Your task to perform on an android device: toggle improve location accuracy Image 0: 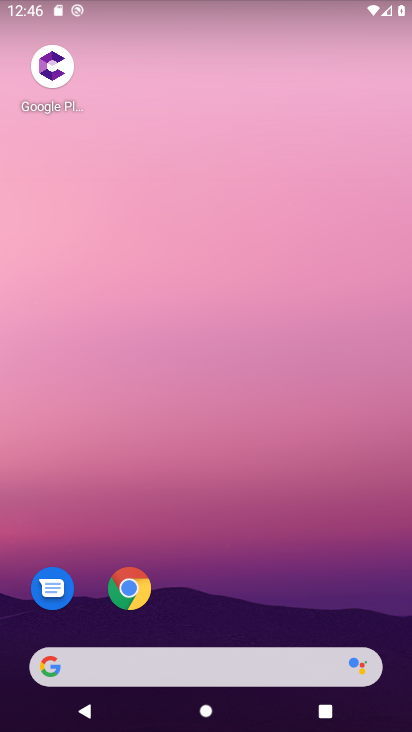
Step 0: drag from (205, 627) to (205, 323)
Your task to perform on an android device: toggle improve location accuracy Image 1: 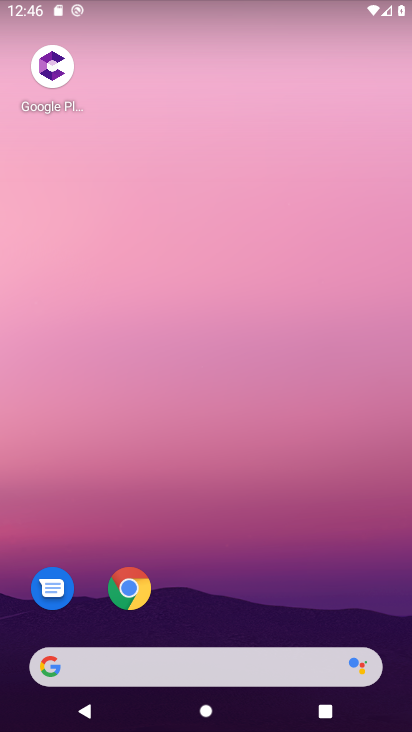
Step 1: drag from (259, 613) to (318, 196)
Your task to perform on an android device: toggle improve location accuracy Image 2: 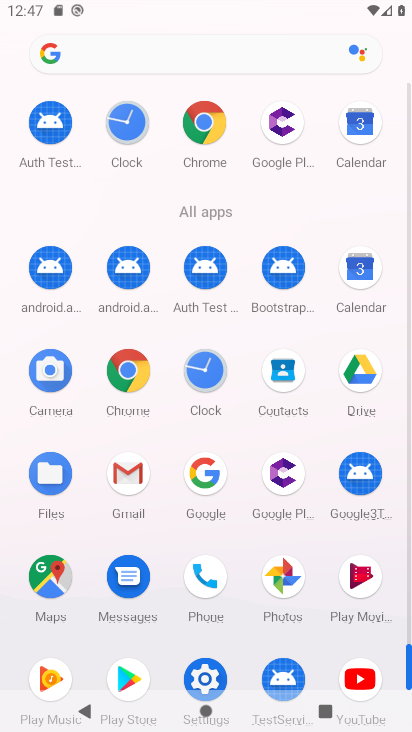
Step 2: drag from (194, 459) to (194, 332)
Your task to perform on an android device: toggle improve location accuracy Image 3: 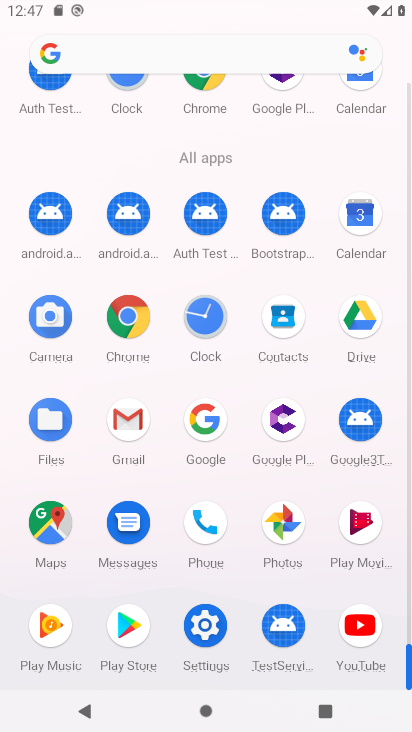
Step 3: click (208, 633)
Your task to perform on an android device: toggle improve location accuracy Image 4: 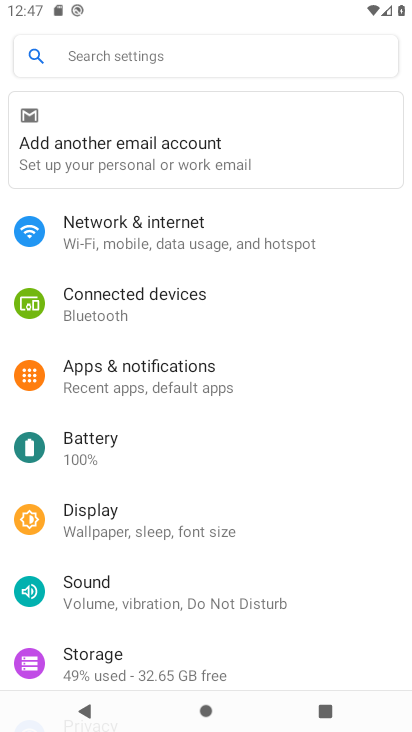
Step 4: drag from (155, 608) to (156, 372)
Your task to perform on an android device: toggle improve location accuracy Image 5: 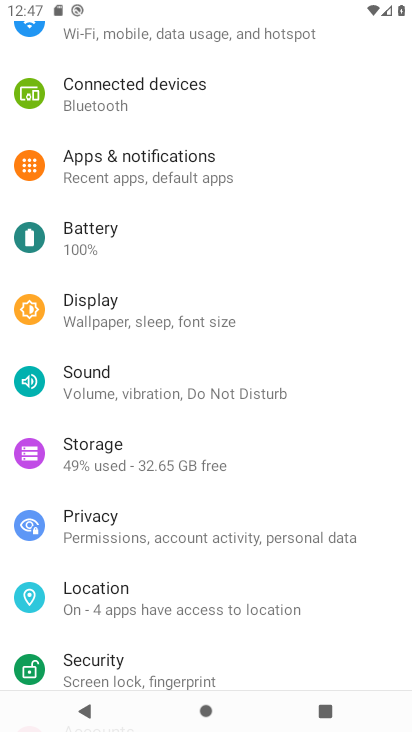
Step 5: click (185, 603)
Your task to perform on an android device: toggle improve location accuracy Image 6: 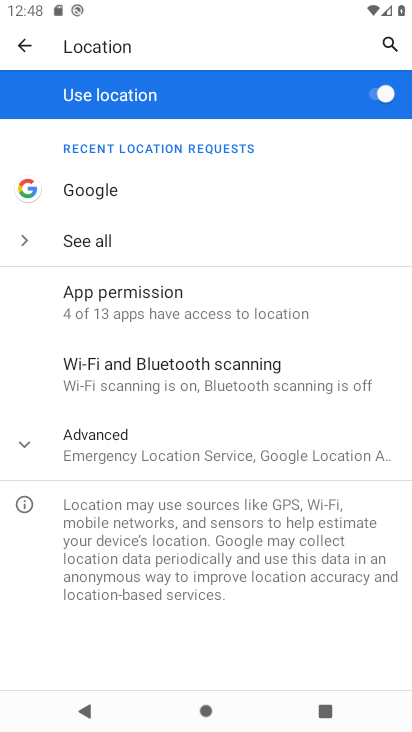
Step 6: click (157, 458)
Your task to perform on an android device: toggle improve location accuracy Image 7: 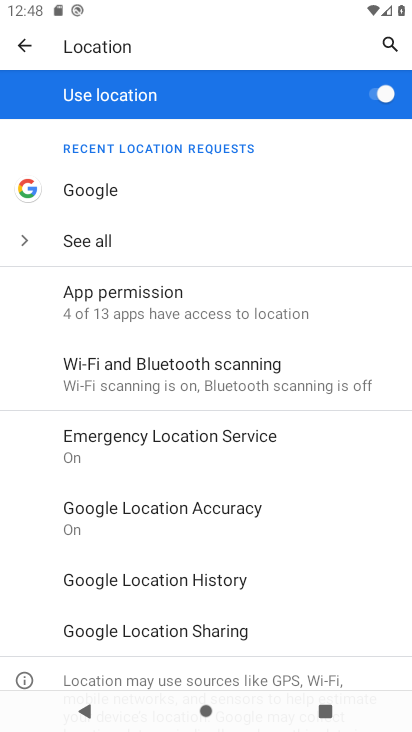
Step 7: click (177, 510)
Your task to perform on an android device: toggle improve location accuracy Image 8: 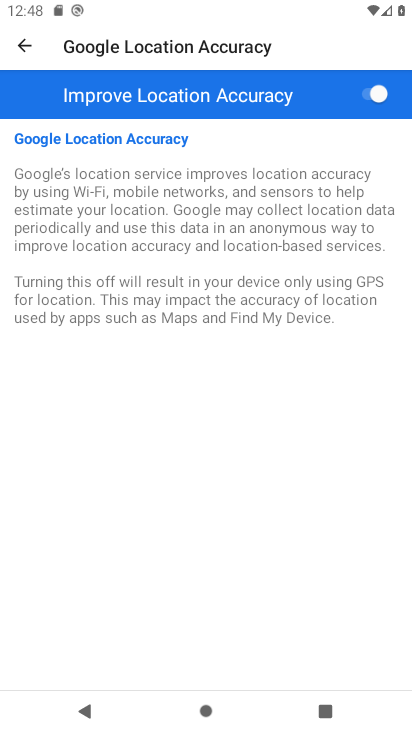
Step 8: click (363, 91)
Your task to perform on an android device: toggle improve location accuracy Image 9: 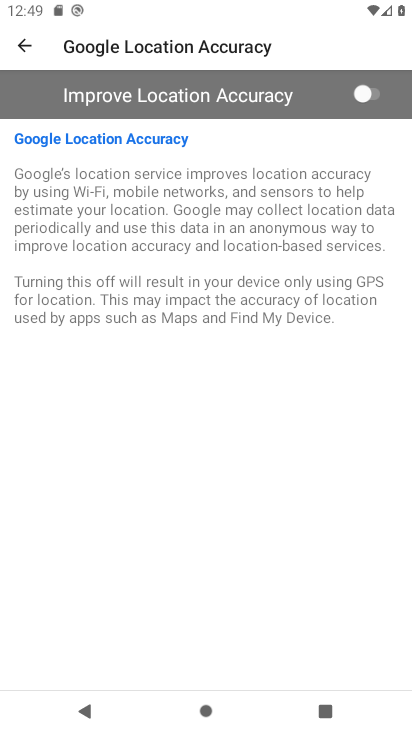
Step 9: task complete